Your task to perform on an android device: show emergency info Image 0: 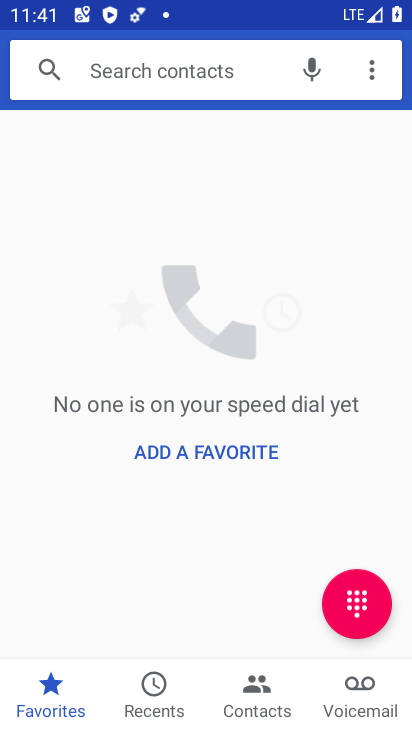
Step 0: press home button
Your task to perform on an android device: show emergency info Image 1: 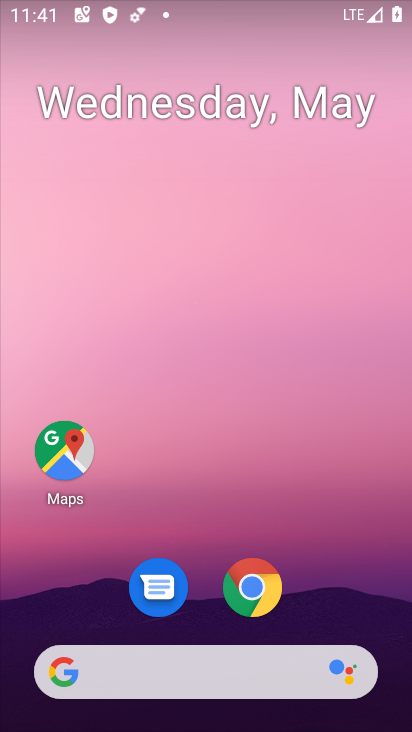
Step 1: drag from (325, 580) to (338, 2)
Your task to perform on an android device: show emergency info Image 2: 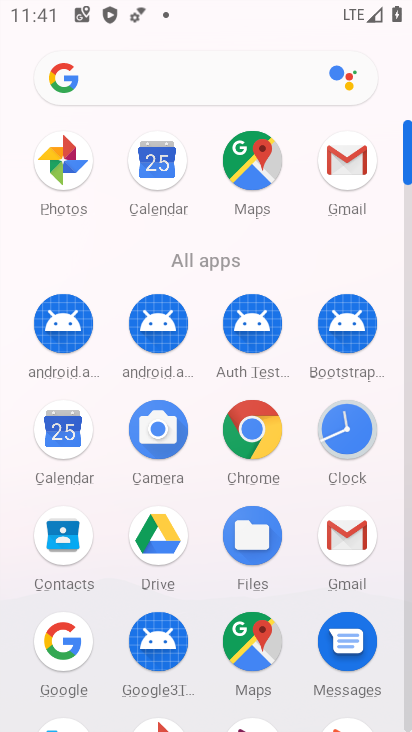
Step 2: drag from (235, 270) to (265, 6)
Your task to perform on an android device: show emergency info Image 3: 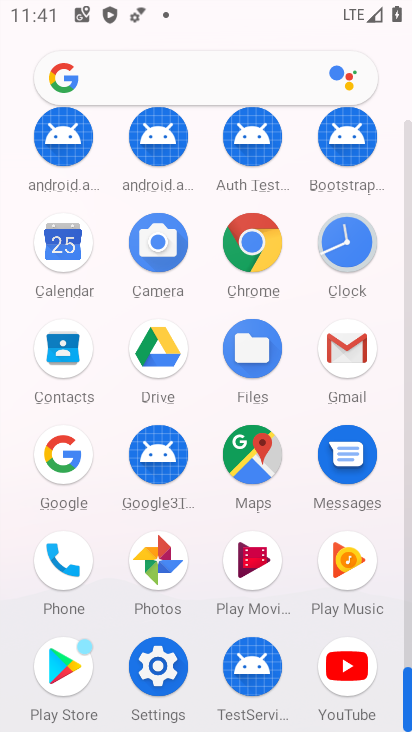
Step 3: click (173, 654)
Your task to perform on an android device: show emergency info Image 4: 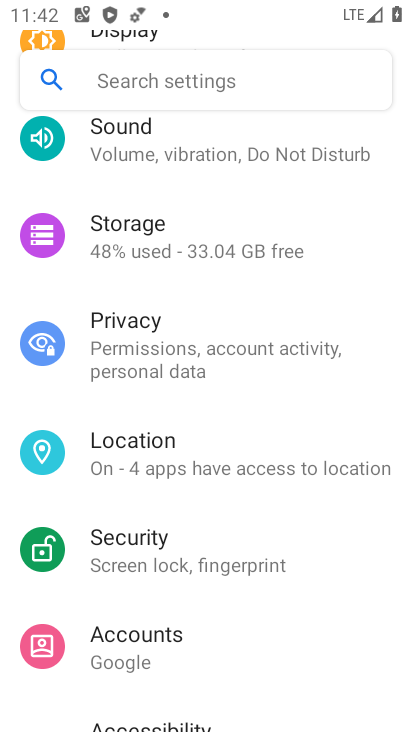
Step 4: click (202, 608)
Your task to perform on an android device: show emergency info Image 5: 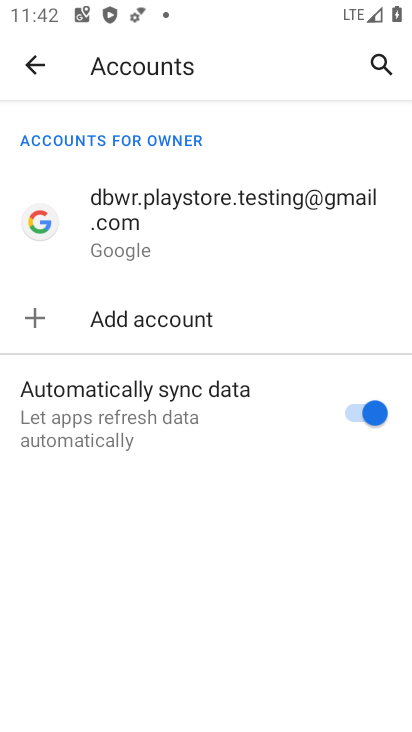
Step 5: click (33, 75)
Your task to perform on an android device: show emergency info Image 6: 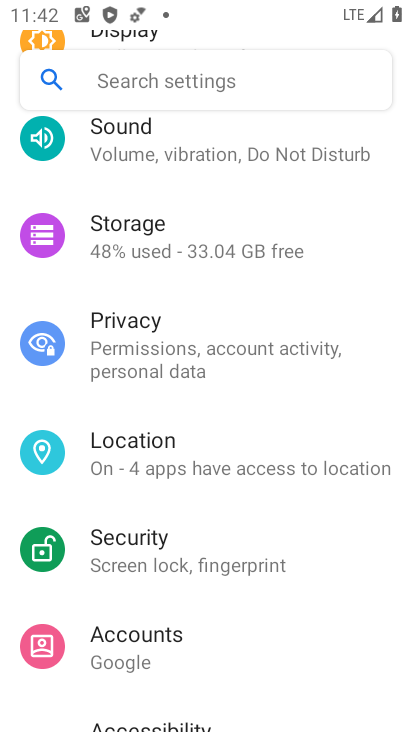
Step 6: drag from (245, 620) to (230, 9)
Your task to perform on an android device: show emergency info Image 7: 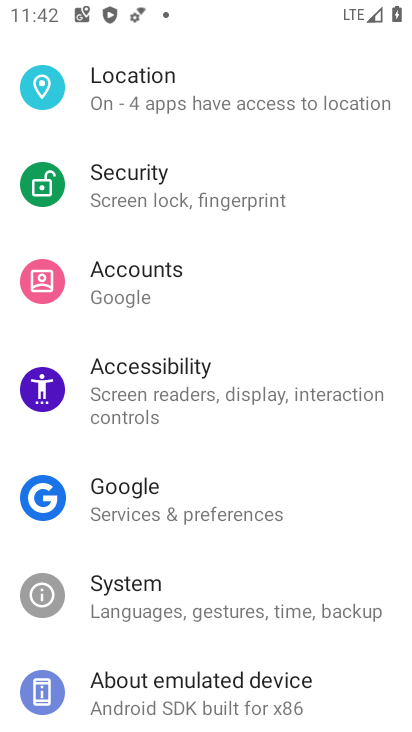
Step 7: click (235, 690)
Your task to perform on an android device: show emergency info Image 8: 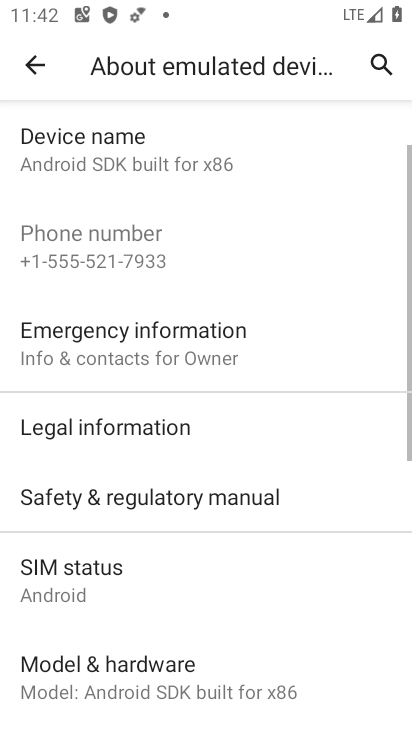
Step 8: click (182, 334)
Your task to perform on an android device: show emergency info Image 9: 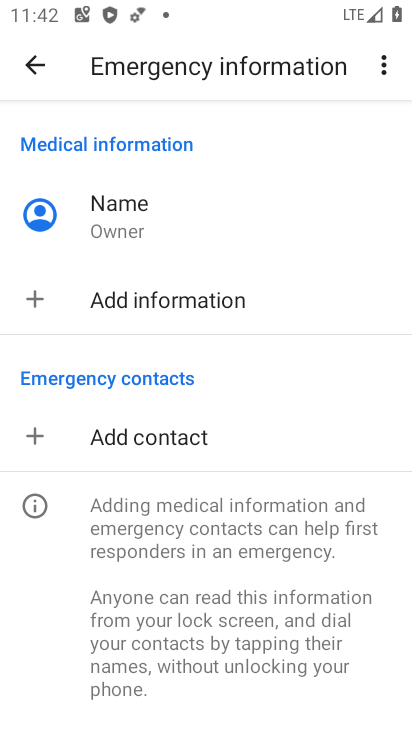
Step 9: task complete